Your task to perform on an android device: make emails show in primary in the gmail app Image 0: 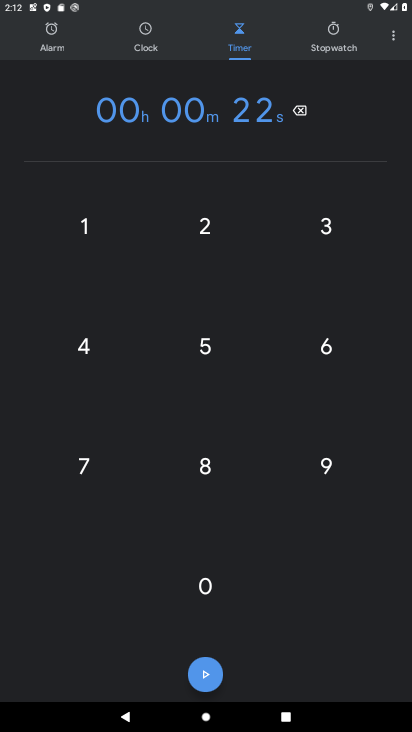
Step 0: press home button
Your task to perform on an android device: make emails show in primary in the gmail app Image 1: 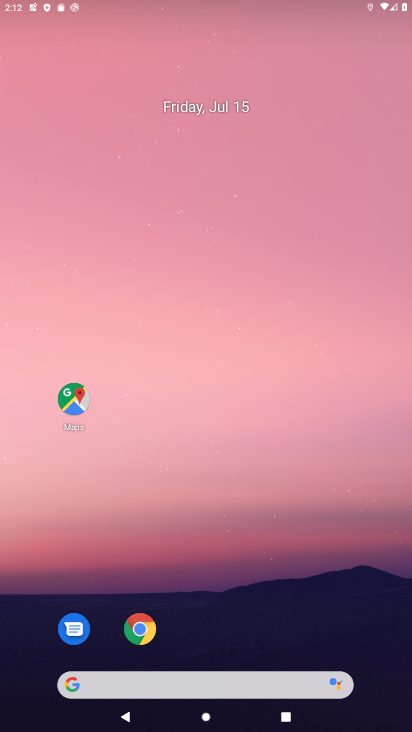
Step 1: drag from (230, 616) to (319, 231)
Your task to perform on an android device: make emails show in primary in the gmail app Image 2: 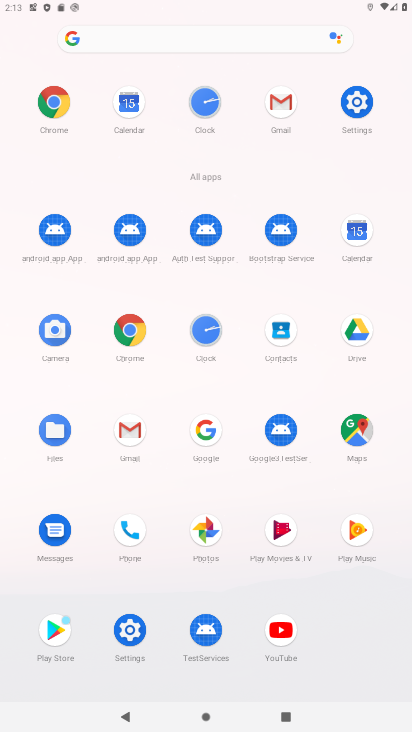
Step 2: click (281, 104)
Your task to perform on an android device: make emails show in primary in the gmail app Image 3: 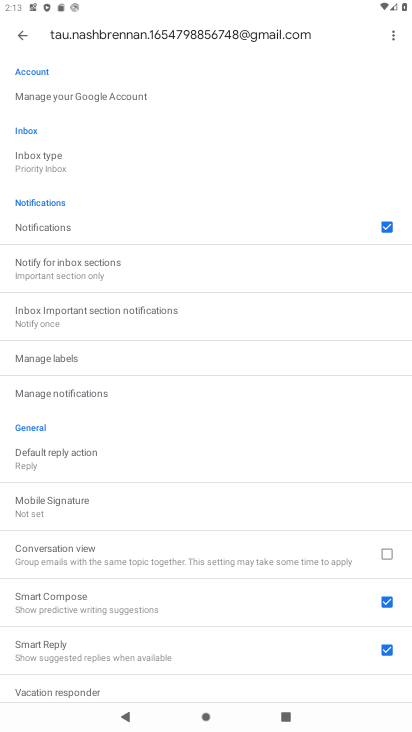
Step 3: click (53, 161)
Your task to perform on an android device: make emails show in primary in the gmail app Image 4: 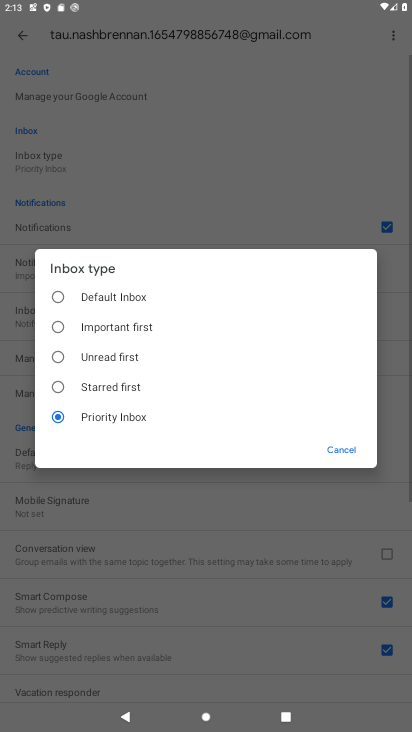
Step 4: click (57, 290)
Your task to perform on an android device: make emails show in primary in the gmail app Image 5: 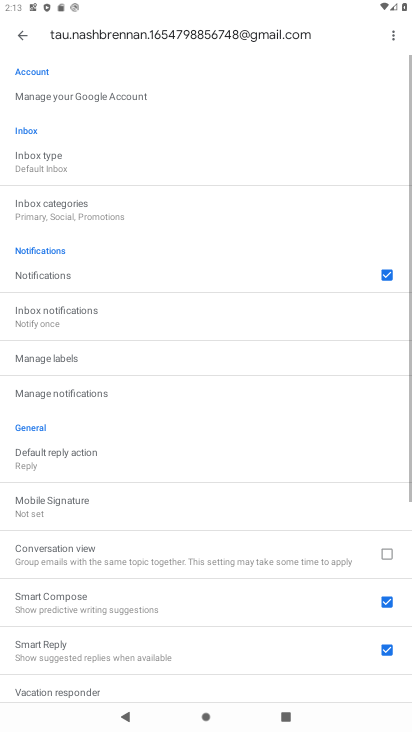
Step 5: click (59, 210)
Your task to perform on an android device: make emails show in primary in the gmail app Image 6: 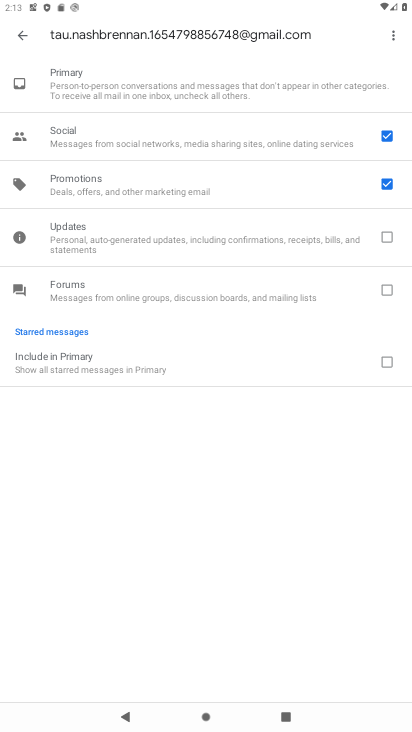
Step 6: click (389, 131)
Your task to perform on an android device: make emails show in primary in the gmail app Image 7: 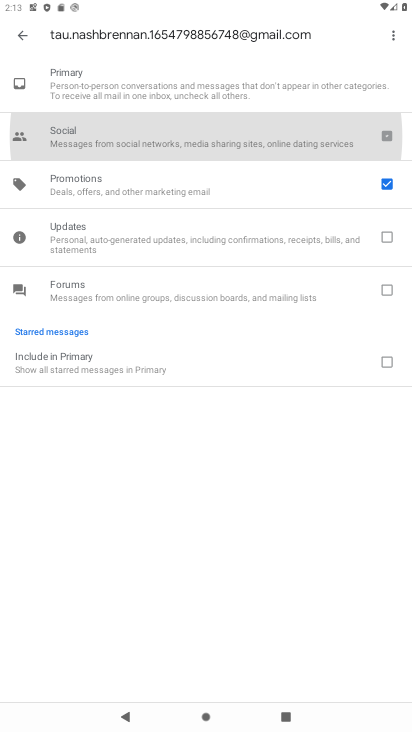
Step 7: click (384, 187)
Your task to perform on an android device: make emails show in primary in the gmail app Image 8: 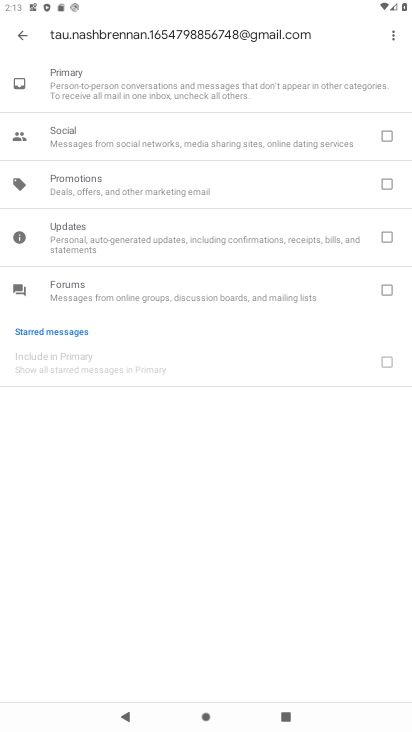
Step 8: task complete